Your task to perform on an android device: Search for a 3D printer on aliexpress. Image 0: 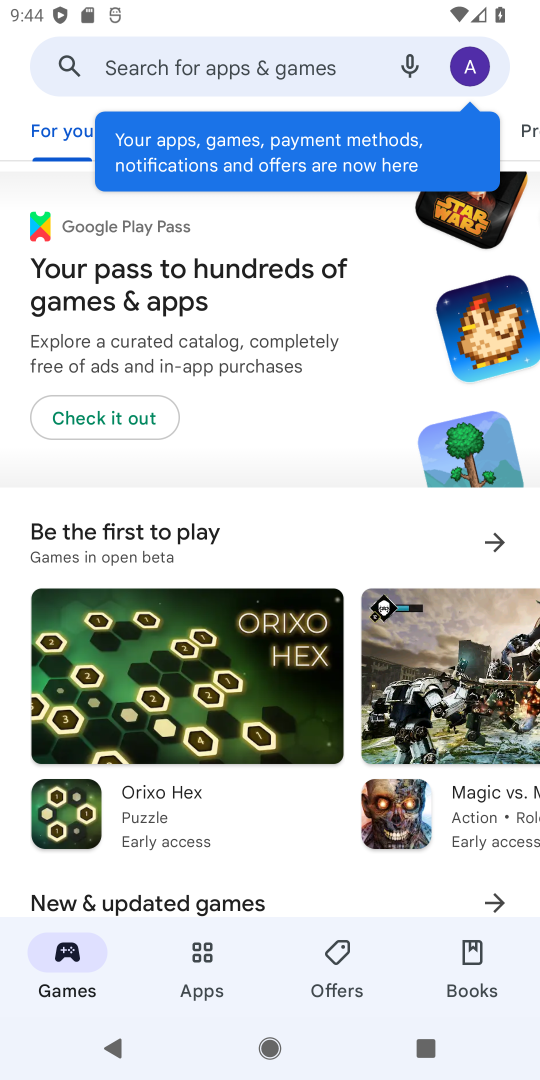
Step 0: press home button
Your task to perform on an android device: Search for a 3D printer on aliexpress. Image 1: 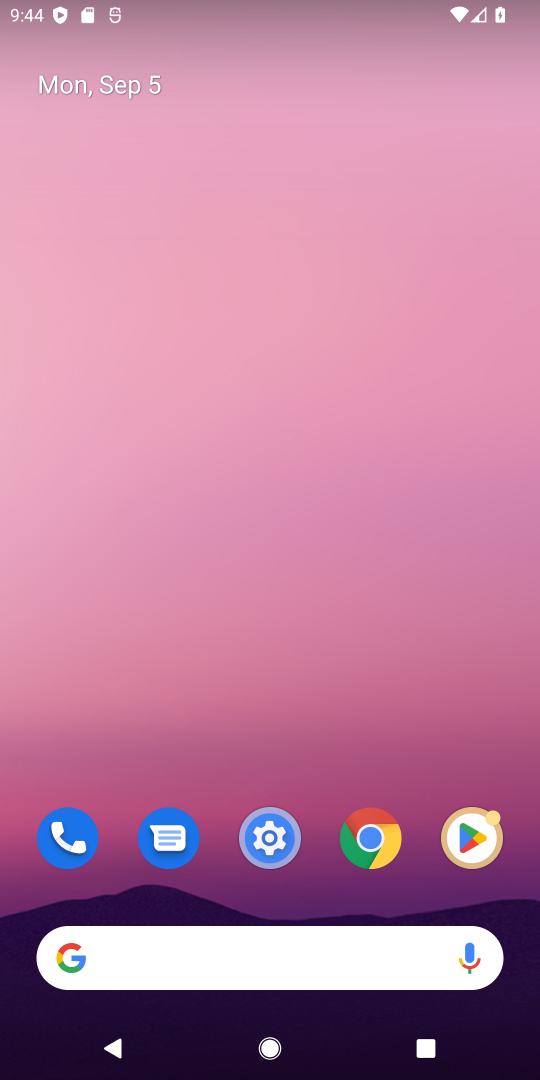
Step 1: click (252, 957)
Your task to perform on an android device: Search for a 3D printer on aliexpress. Image 2: 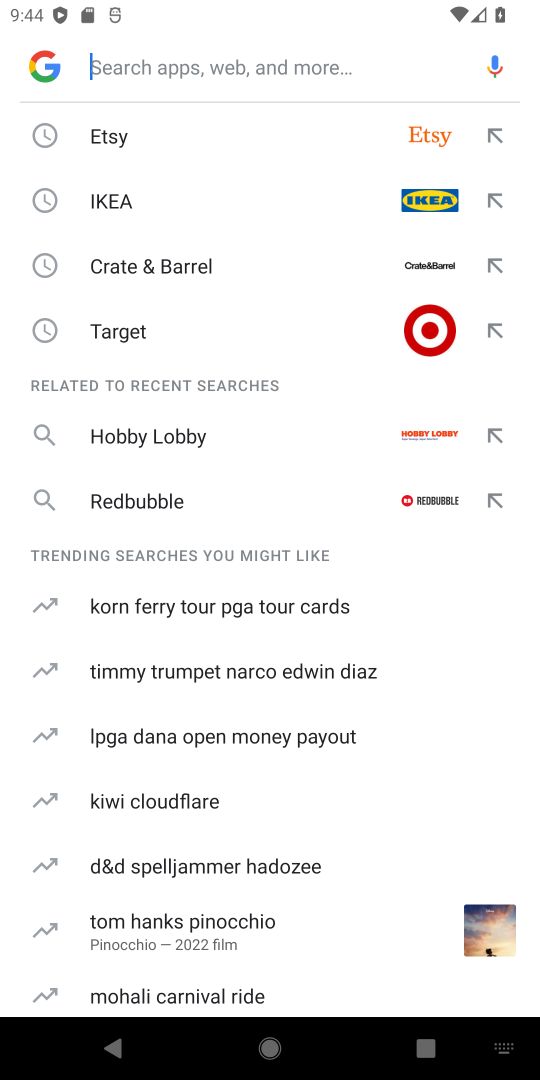
Step 2: type "aliexpress."
Your task to perform on an android device: Search for a 3D printer on aliexpress. Image 3: 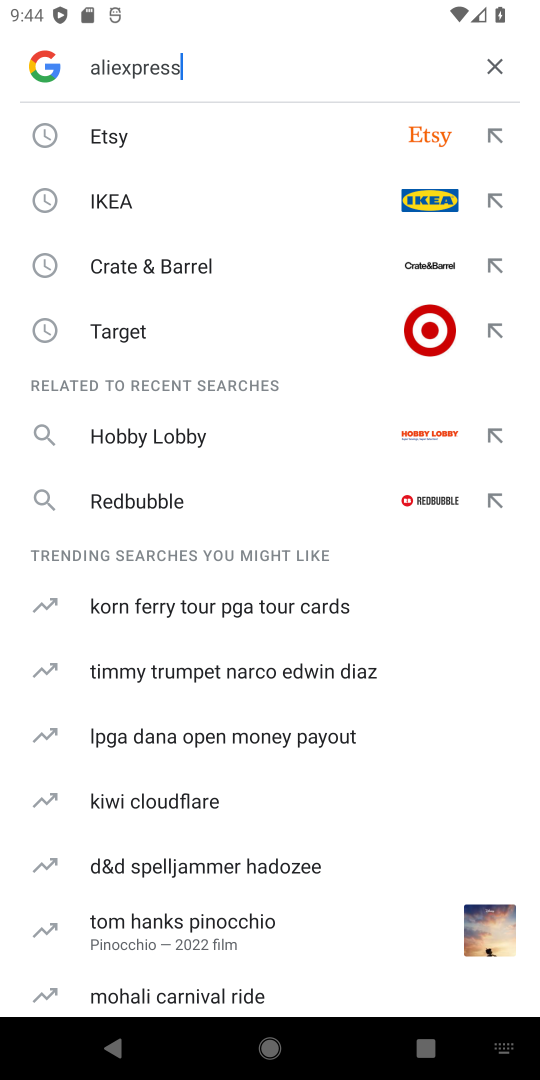
Step 3: type ""
Your task to perform on an android device: Search for a 3D printer on aliexpress. Image 4: 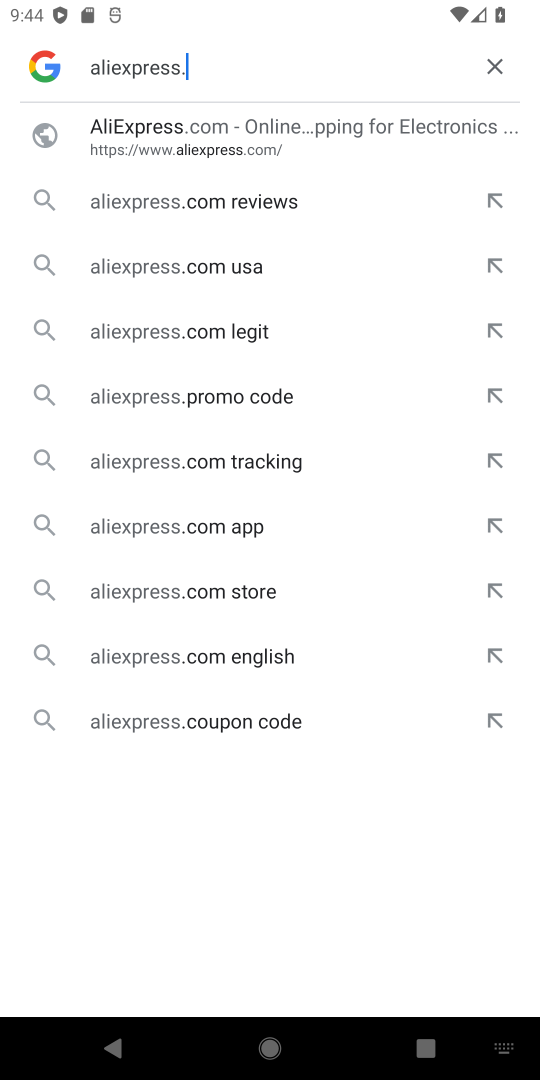
Step 4: click (394, 135)
Your task to perform on an android device: Search for a 3D printer on aliexpress. Image 5: 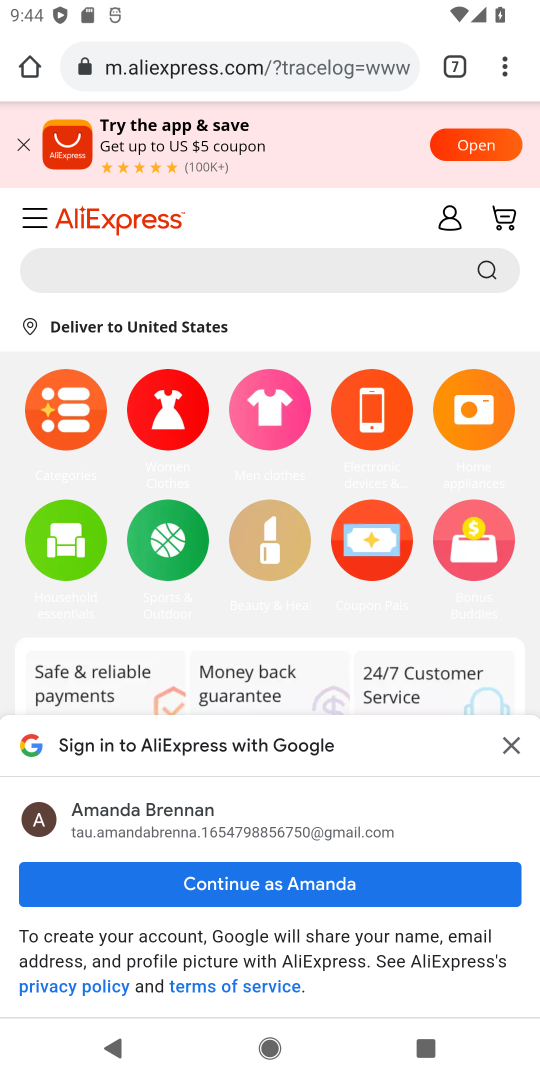
Step 5: click (431, 274)
Your task to perform on an android device: Search for a 3D printer on aliexpress. Image 6: 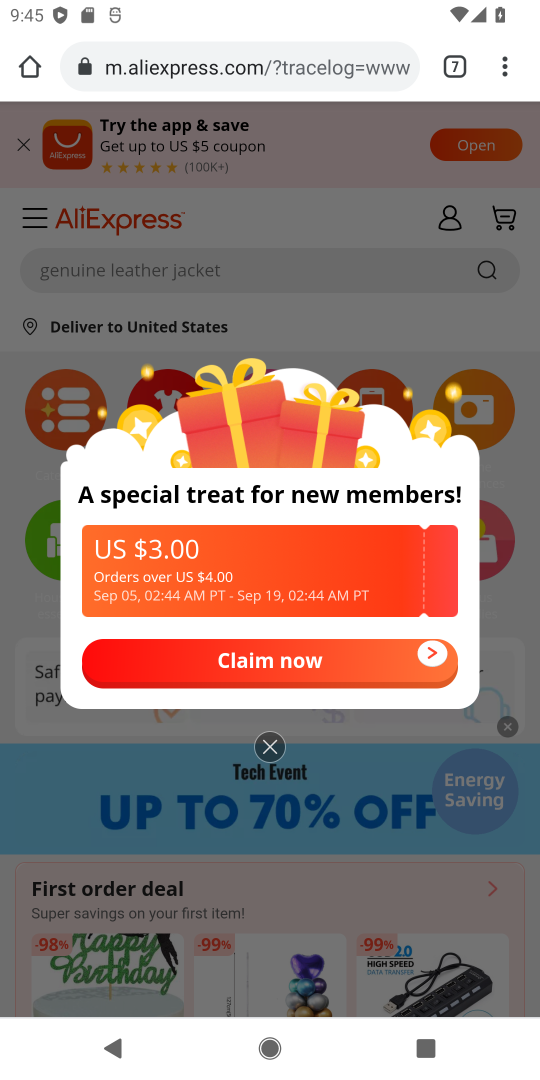
Step 6: click (271, 746)
Your task to perform on an android device: Search for a 3D printer on aliexpress. Image 7: 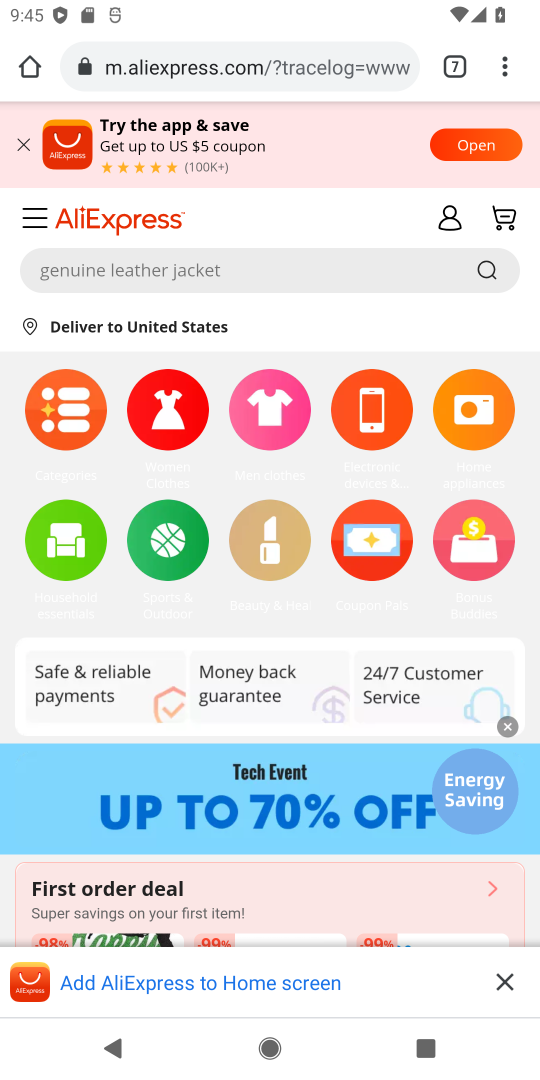
Step 7: click (272, 268)
Your task to perform on an android device: Search for a 3D printer on aliexpress. Image 8: 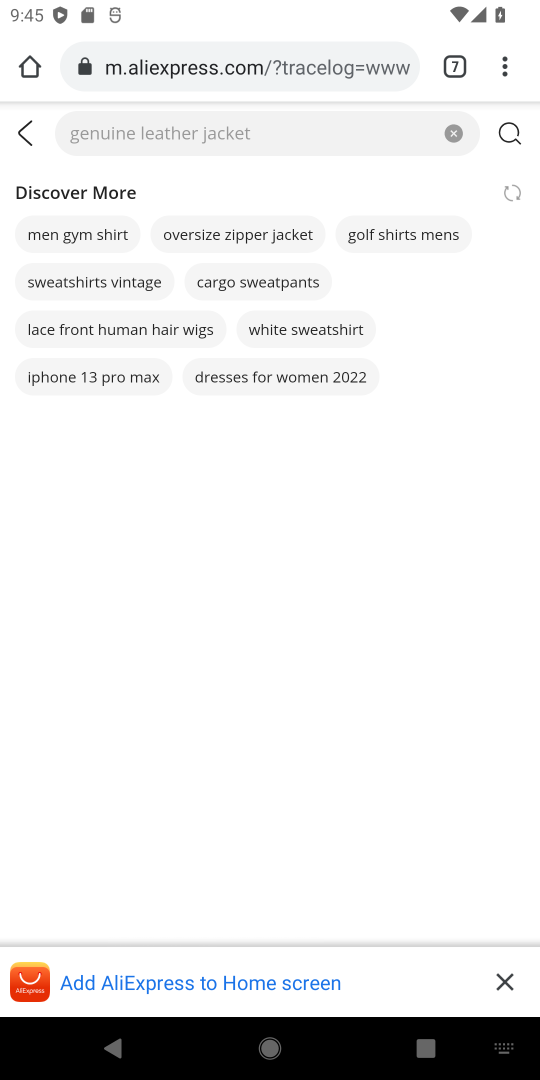
Step 8: type "3D printer"
Your task to perform on an android device: Search for a 3D printer on aliexpress. Image 9: 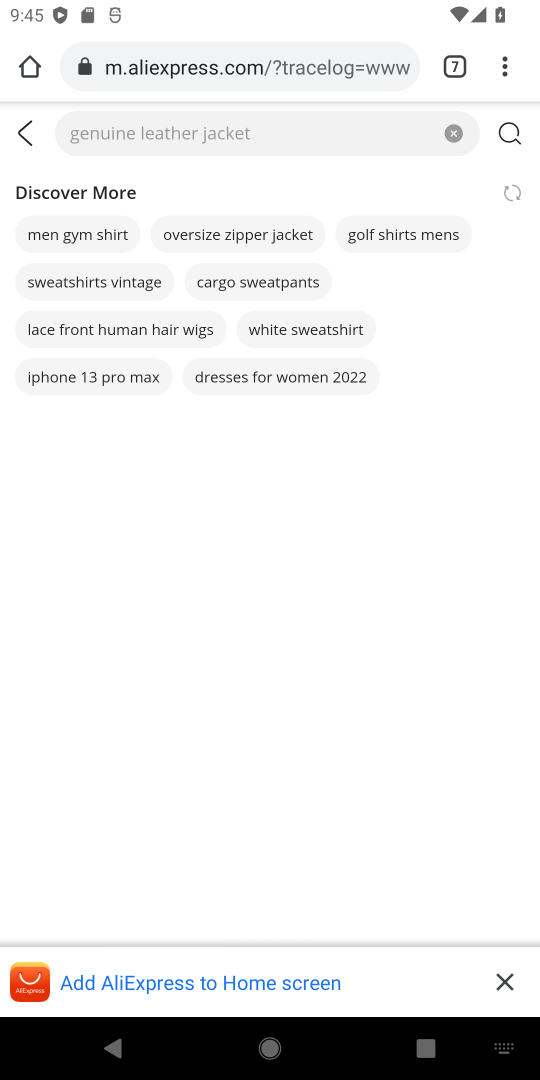
Step 9: type ""
Your task to perform on an android device: Search for a 3D printer on aliexpress. Image 10: 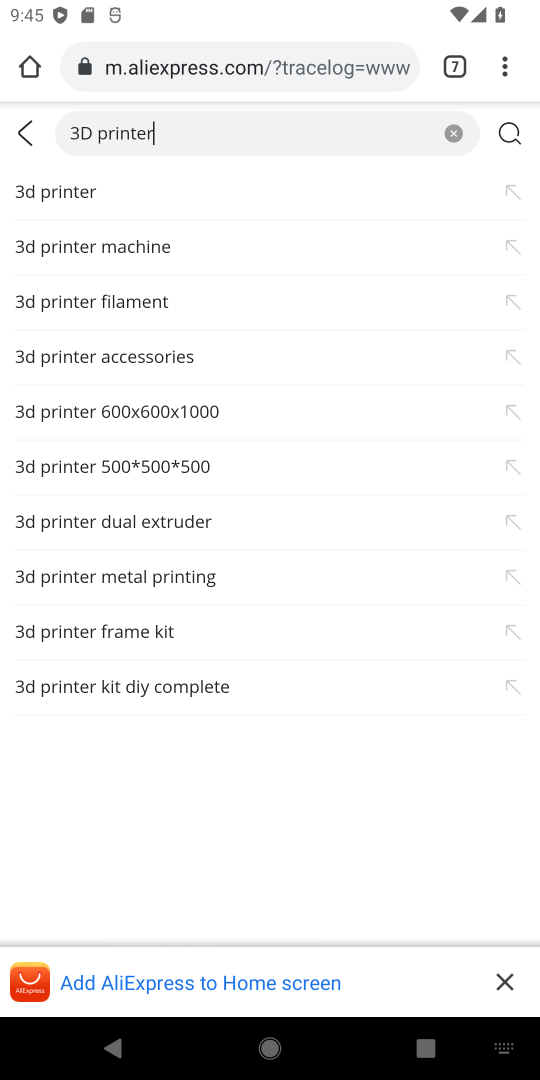
Step 10: click (182, 197)
Your task to perform on an android device: Search for a 3D printer on aliexpress. Image 11: 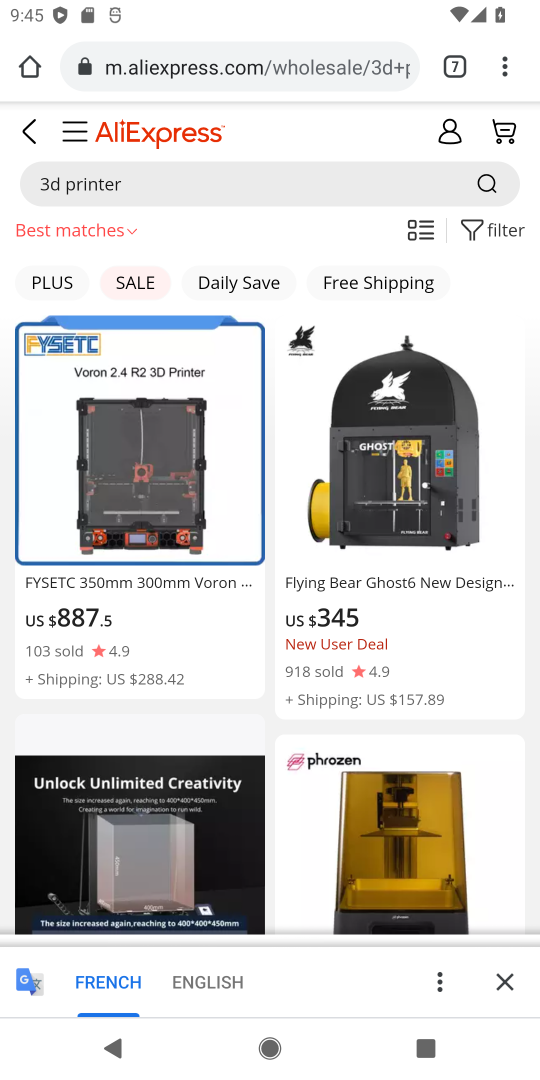
Step 11: task complete